Your task to perform on an android device: Show me recent news Image 0: 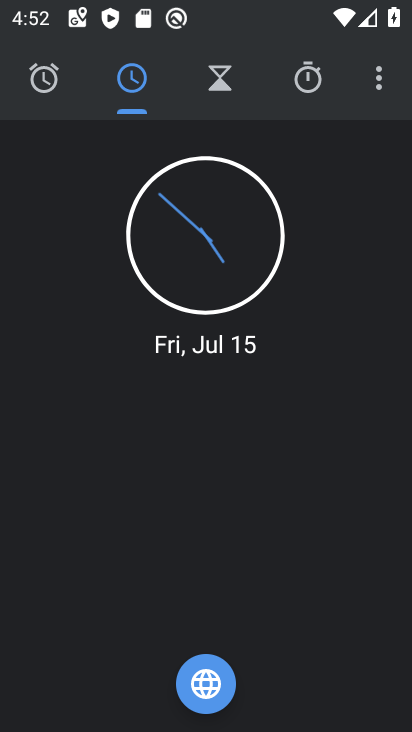
Step 0: press back button
Your task to perform on an android device: Show me recent news Image 1: 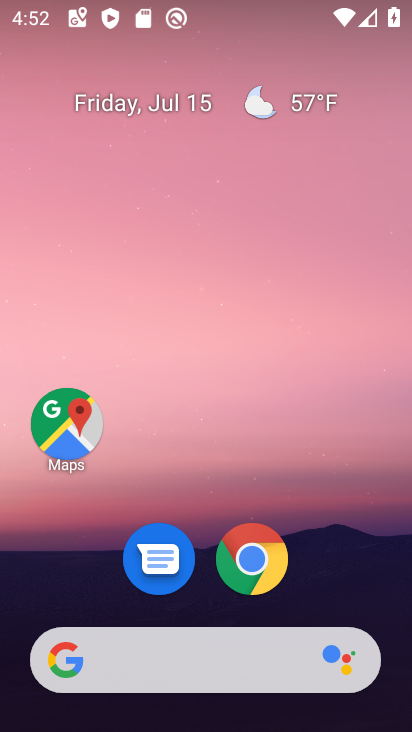
Step 1: click (223, 660)
Your task to perform on an android device: Show me recent news Image 2: 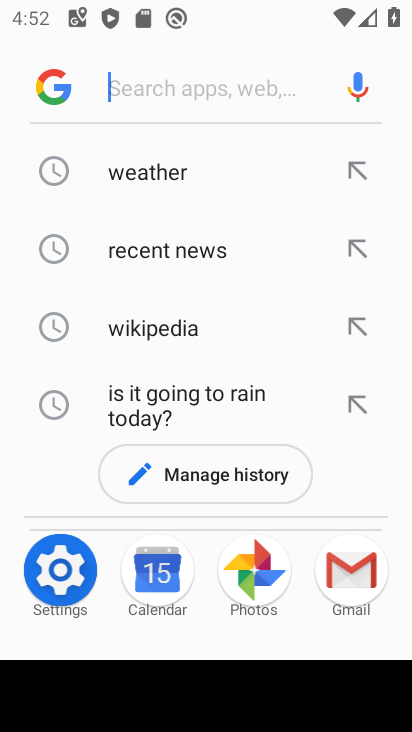
Step 2: click (172, 248)
Your task to perform on an android device: Show me recent news Image 3: 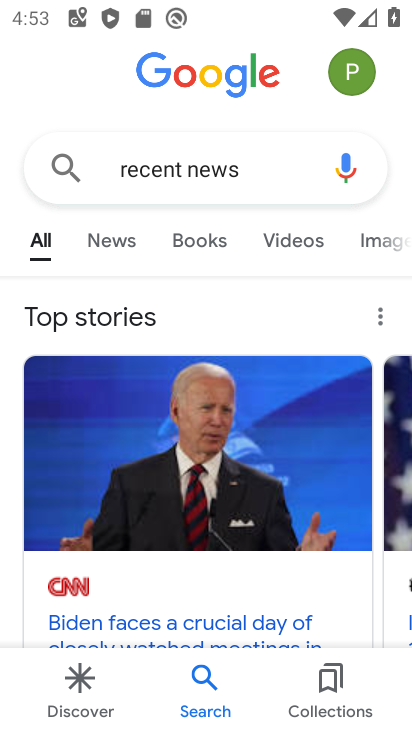
Step 3: task complete